Your task to perform on an android device: check out phone information Image 0: 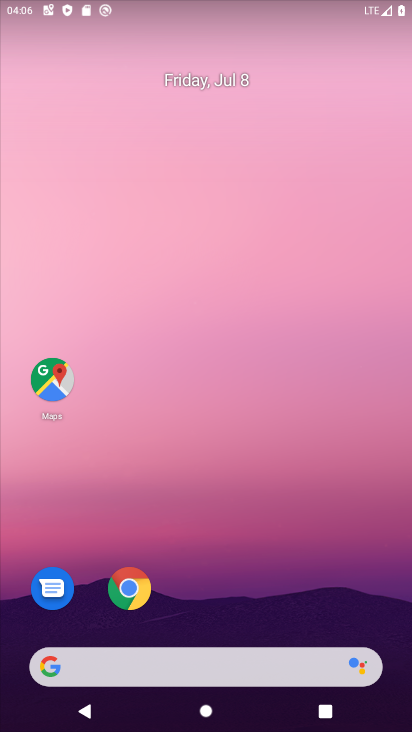
Step 0: drag from (188, 438) to (172, 19)
Your task to perform on an android device: check out phone information Image 1: 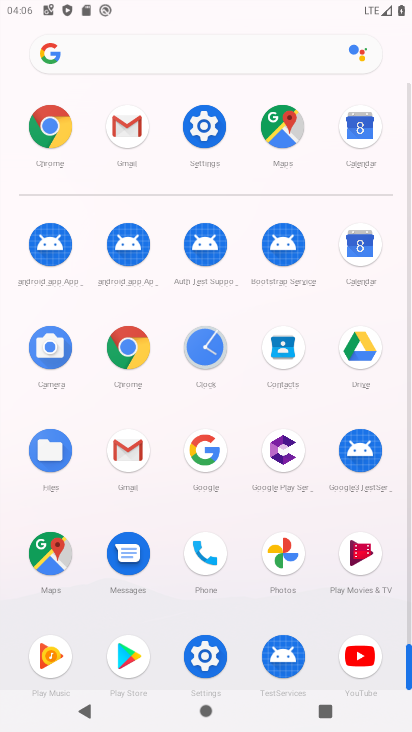
Step 1: click (200, 134)
Your task to perform on an android device: check out phone information Image 2: 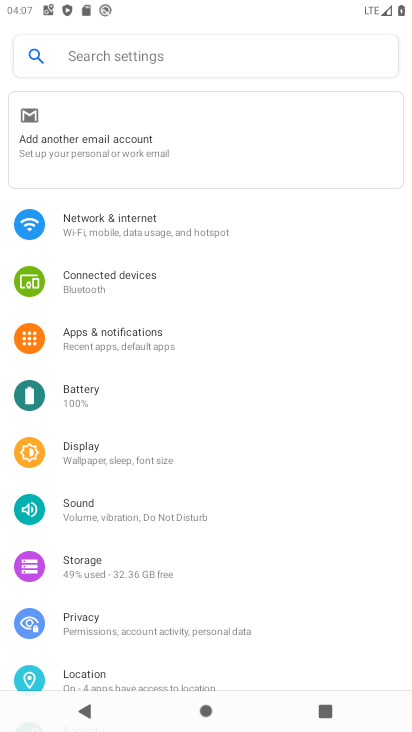
Step 2: drag from (125, 530) to (142, 204)
Your task to perform on an android device: check out phone information Image 3: 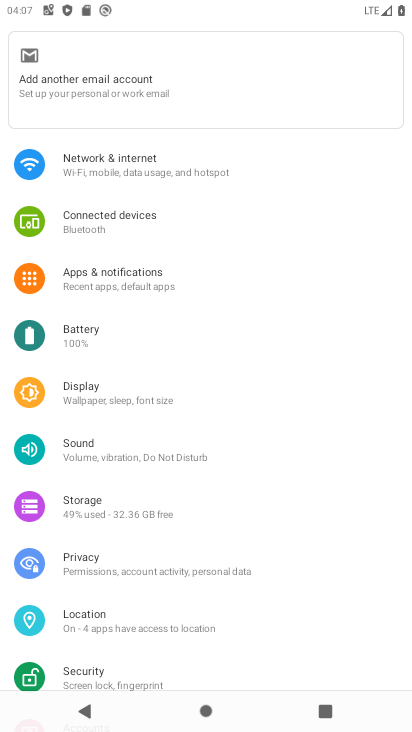
Step 3: drag from (131, 588) to (217, 171)
Your task to perform on an android device: check out phone information Image 4: 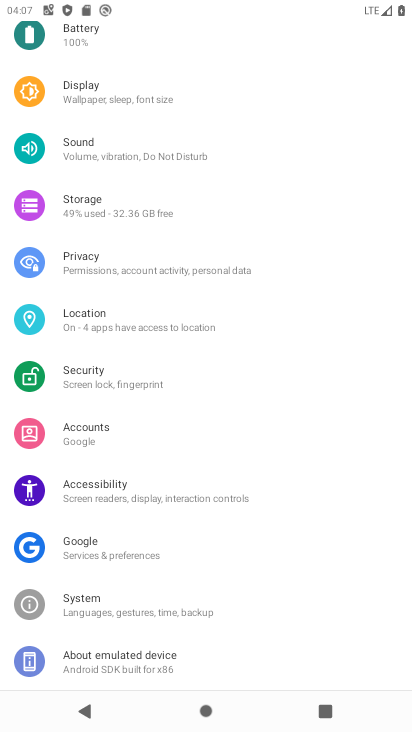
Step 4: click (107, 661)
Your task to perform on an android device: check out phone information Image 5: 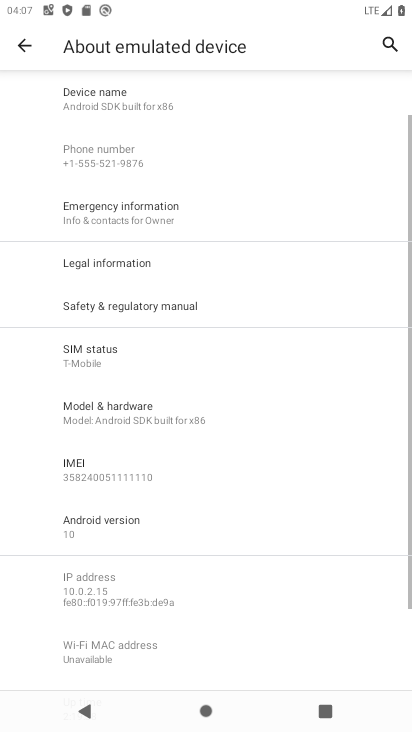
Step 5: task complete